Your task to perform on an android device: turn off javascript in the chrome app Image 0: 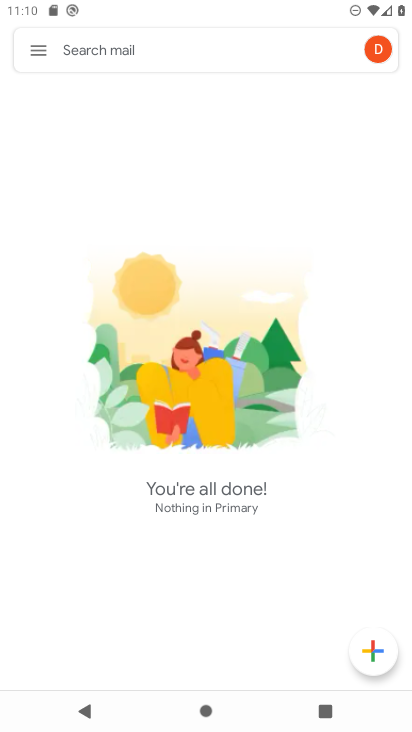
Step 0: press home button
Your task to perform on an android device: turn off javascript in the chrome app Image 1: 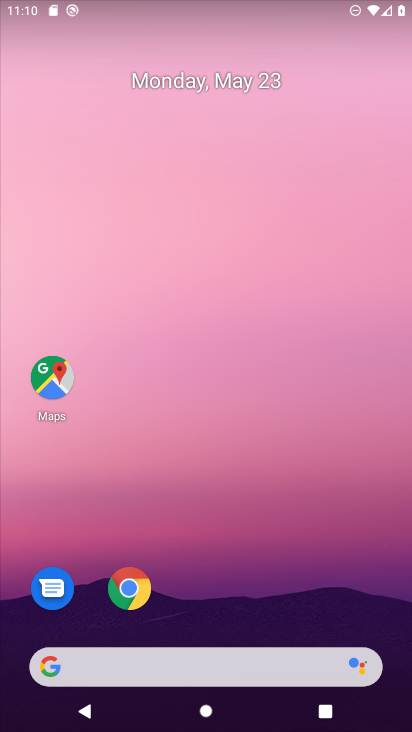
Step 1: drag from (287, 578) to (234, 55)
Your task to perform on an android device: turn off javascript in the chrome app Image 2: 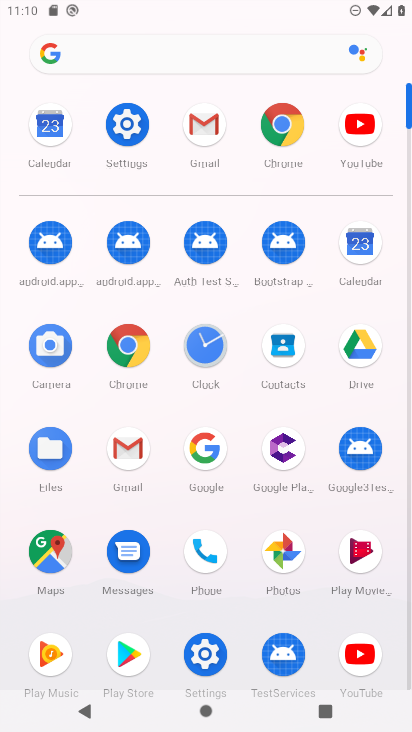
Step 2: click (123, 343)
Your task to perform on an android device: turn off javascript in the chrome app Image 3: 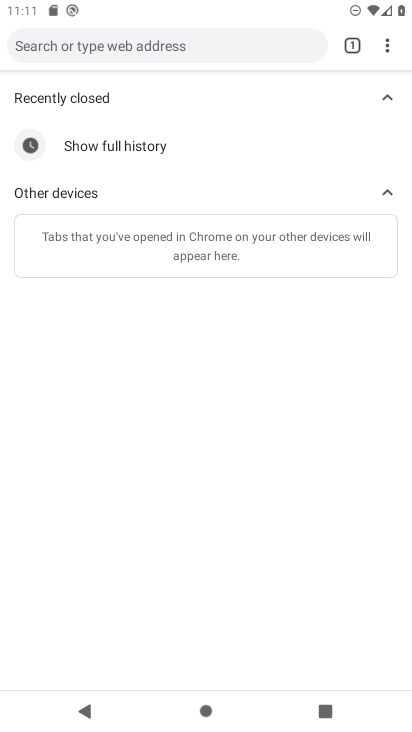
Step 3: click (391, 45)
Your task to perform on an android device: turn off javascript in the chrome app Image 4: 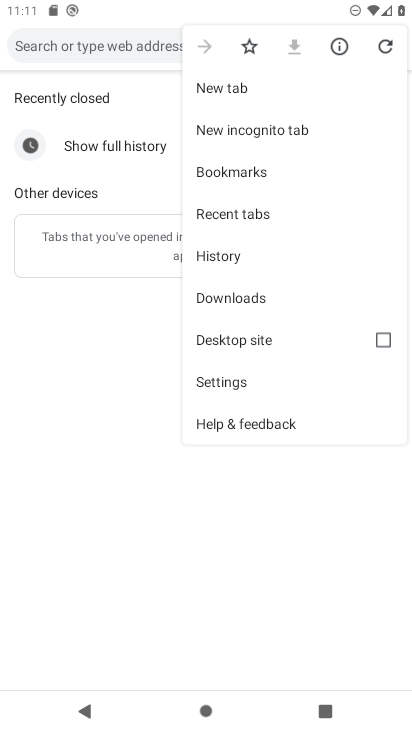
Step 4: click (266, 381)
Your task to perform on an android device: turn off javascript in the chrome app Image 5: 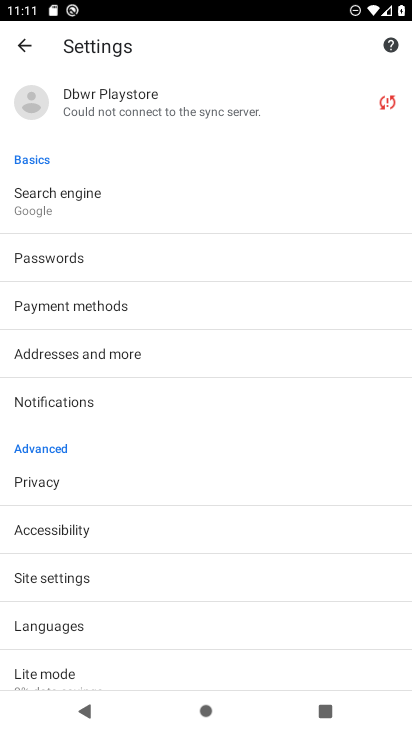
Step 5: drag from (171, 558) to (196, 256)
Your task to perform on an android device: turn off javascript in the chrome app Image 6: 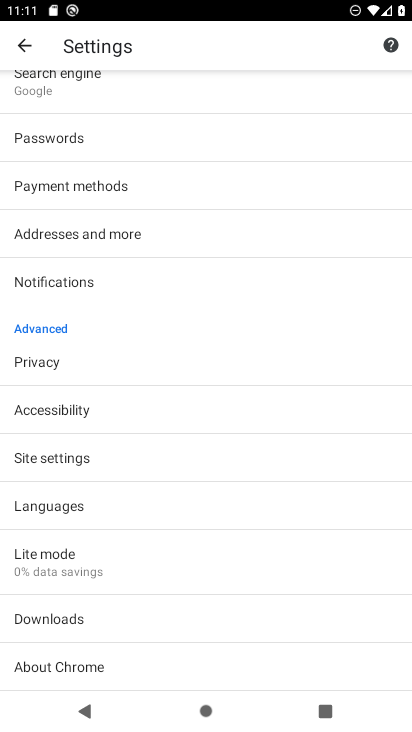
Step 6: click (64, 453)
Your task to perform on an android device: turn off javascript in the chrome app Image 7: 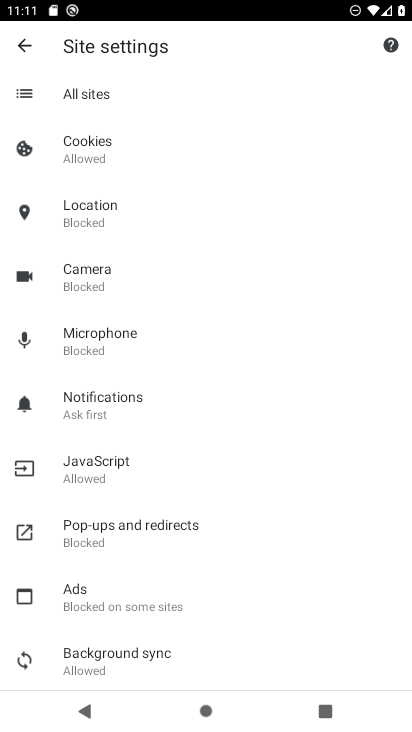
Step 7: click (61, 458)
Your task to perform on an android device: turn off javascript in the chrome app Image 8: 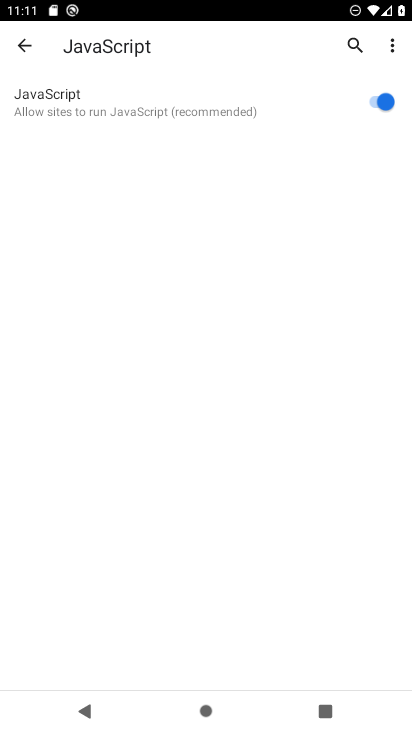
Step 8: click (377, 94)
Your task to perform on an android device: turn off javascript in the chrome app Image 9: 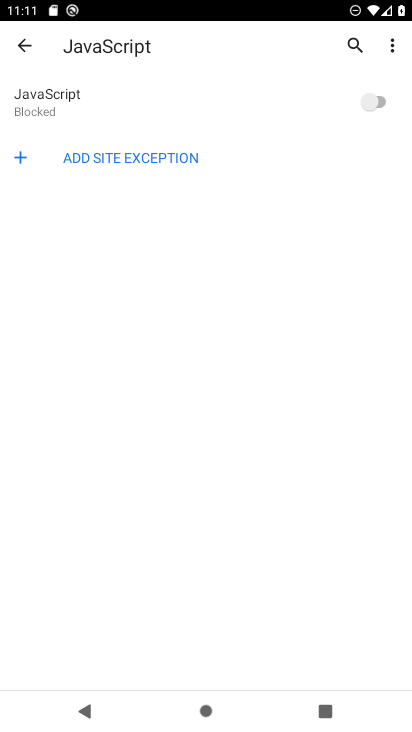
Step 9: task complete